Your task to perform on an android device: snooze an email in the gmail app Image 0: 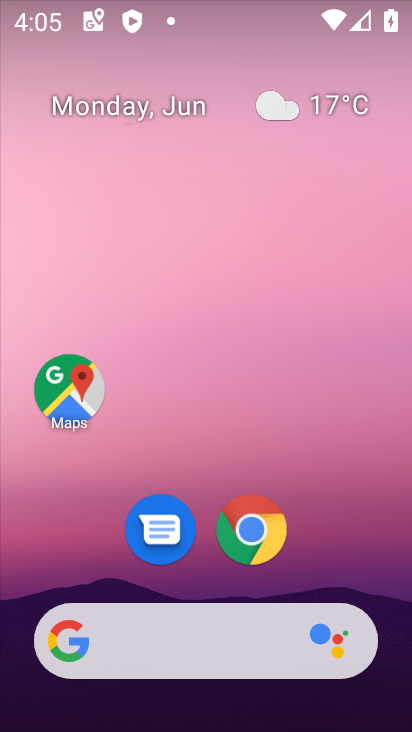
Step 0: drag from (340, 546) to (266, 22)
Your task to perform on an android device: snooze an email in the gmail app Image 1: 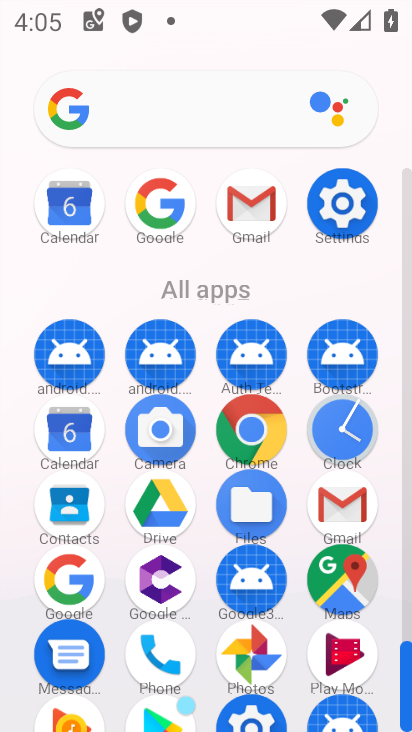
Step 1: click (248, 197)
Your task to perform on an android device: snooze an email in the gmail app Image 2: 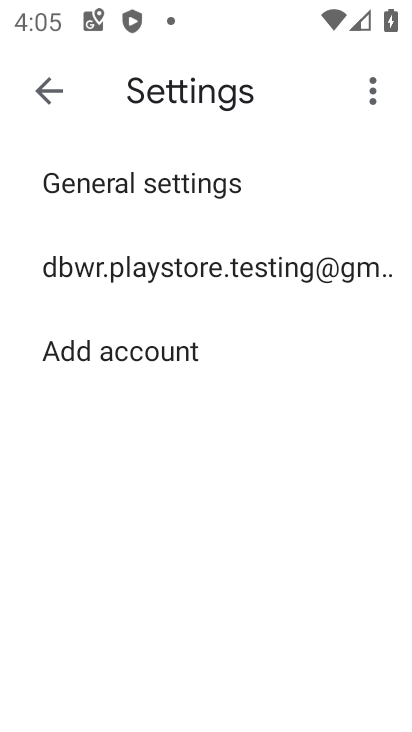
Step 2: click (45, 79)
Your task to perform on an android device: snooze an email in the gmail app Image 3: 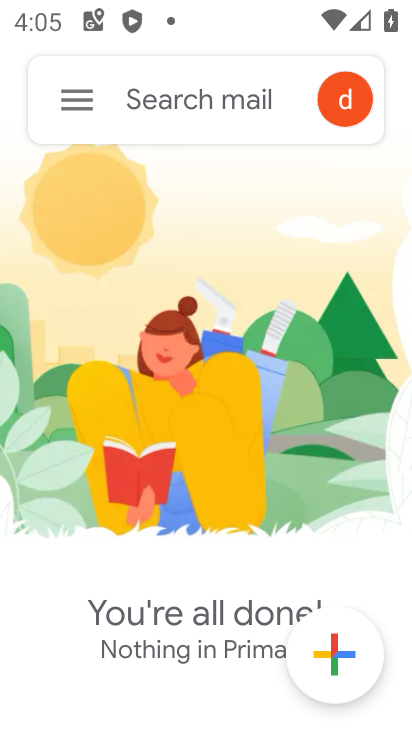
Step 3: click (71, 89)
Your task to perform on an android device: snooze an email in the gmail app Image 4: 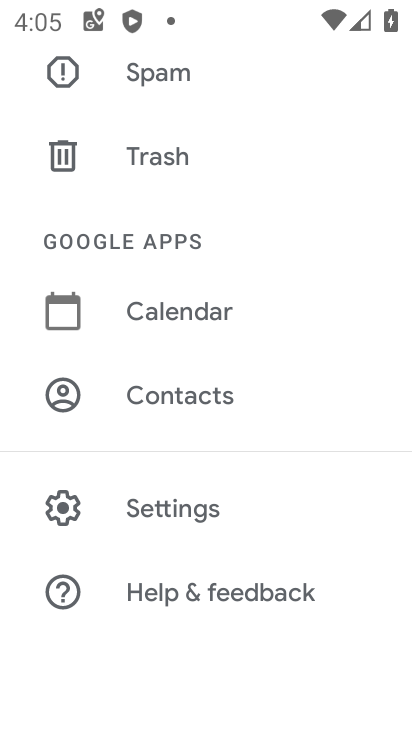
Step 4: drag from (187, 160) to (242, 499)
Your task to perform on an android device: snooze an email in the gmail app Image 5: 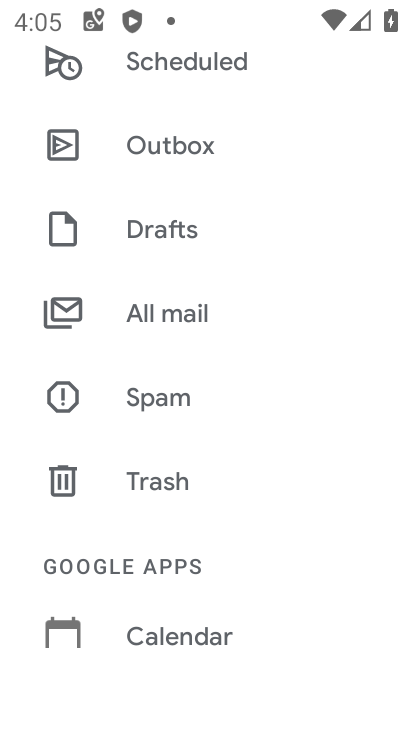
Step 5: click (190, 319)
Your task to perform on an android device: snooze an email in the gmail app Image 6: 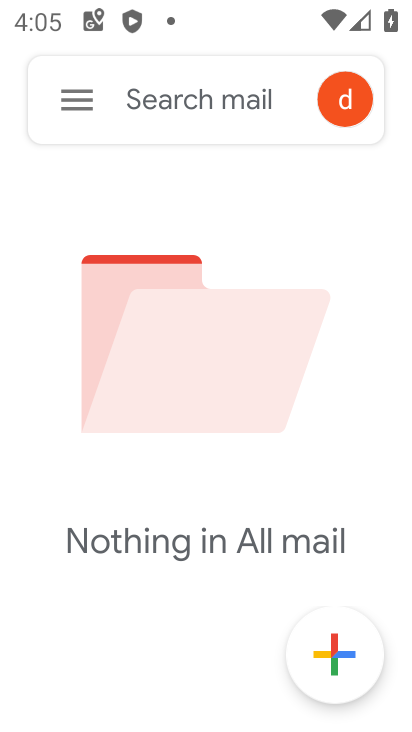
Step 6: click (87, 96)
Your task to perform on an android device: snooze an email in the gmail app Image 7: 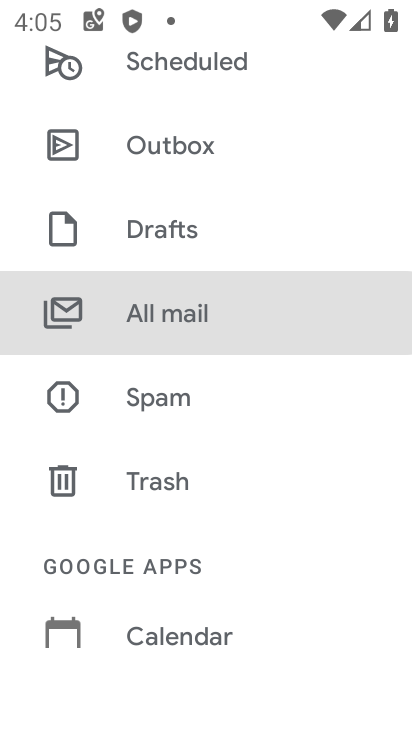
Step 7: drag from (275, 222) to (301, 479)
Your task to perform on an android device: snooze an email in the gmail app Image 8: 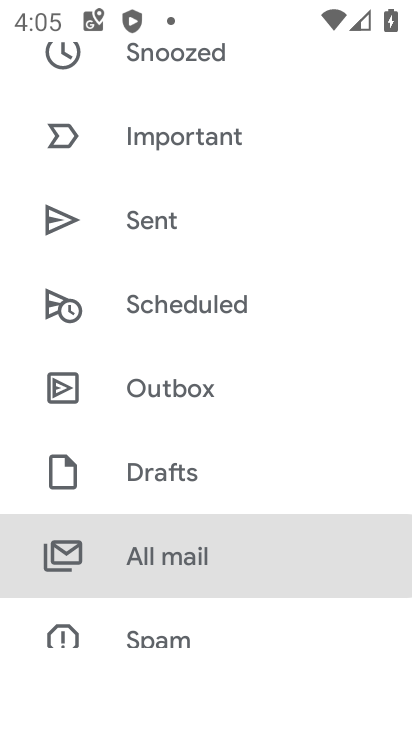
Step 8: drag from (263, 194) to (268, 414)
Your task to perform on an android device: snooze an email in the gmail app Image 9: 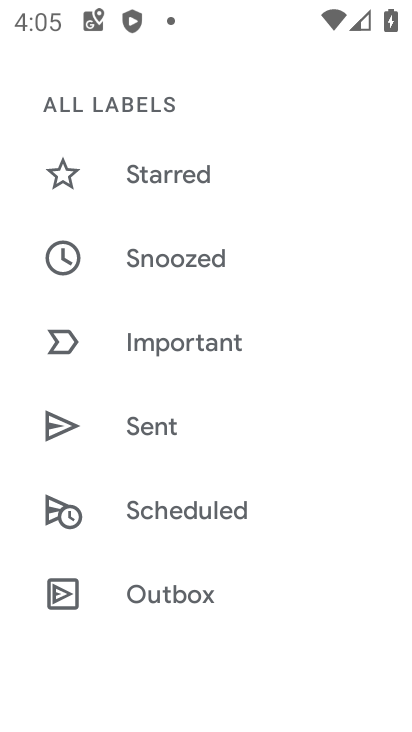
Step 9: click (209, 260)
Your task to perform on an android device: snooze an email in the gmail app Image 10: 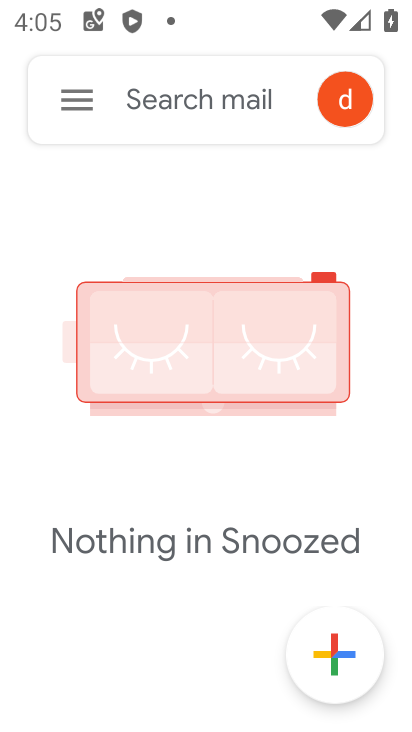
Step 10: task complete